Your task to perform on an android device: Open eBay Image 0: 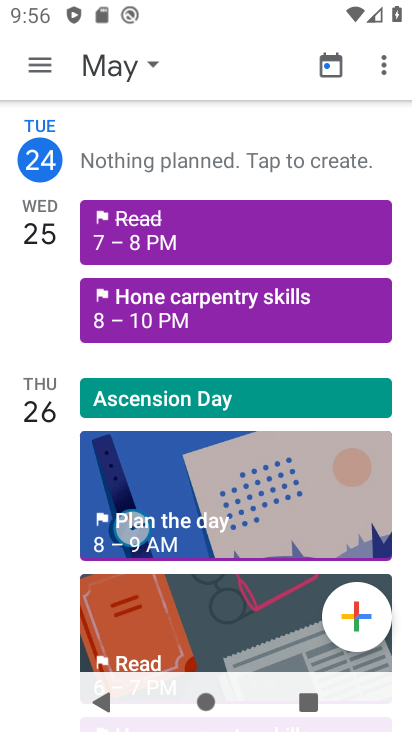
Step 0: press home button
Your task to perform on an android device: Open eBay Image 1: 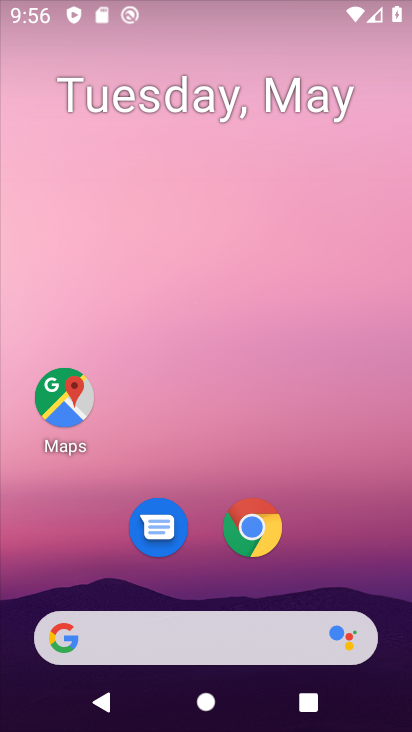
Step 1: drag from (213, 545) to (218, 67)
Your task to perform on an android device: Open eBay Image 2: 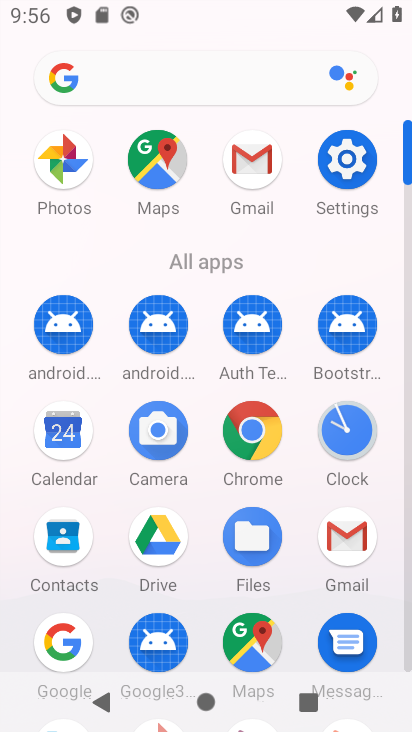
Step 2: click (57, 638)
Your task to perform on an android device: Open eBay Image 3: 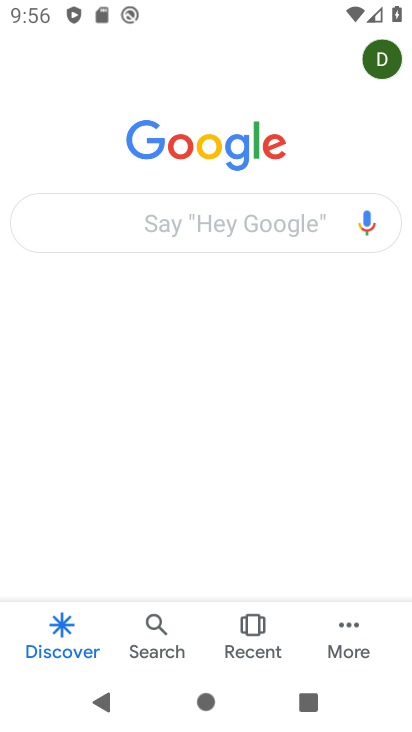
Step 3: click (157, 214)
Your task to perform on an android device: Open eBay Image 4: 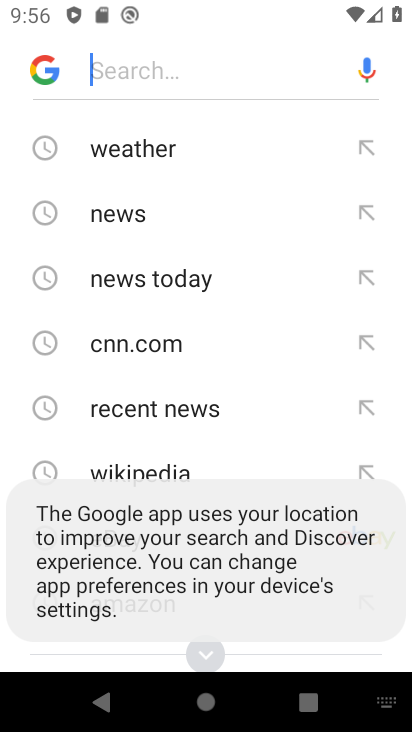
Step 4: drag from (187, 364) to (188, 55)
Your task to perform on an android device: Open eBay Image 5: 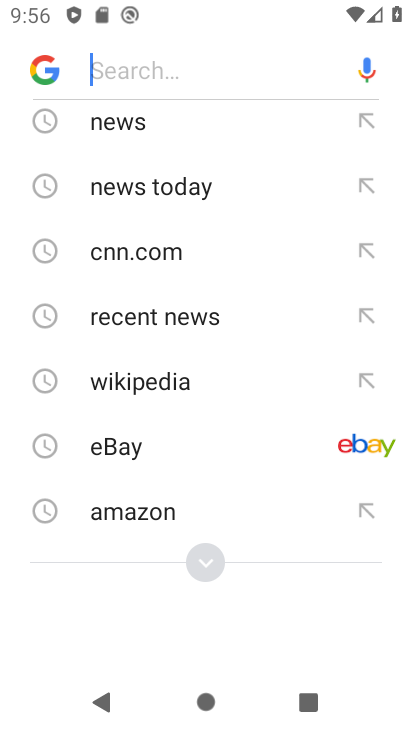
Step 5: click (124, 448)
Your task to perform on an android device: Open eBay Image 6: 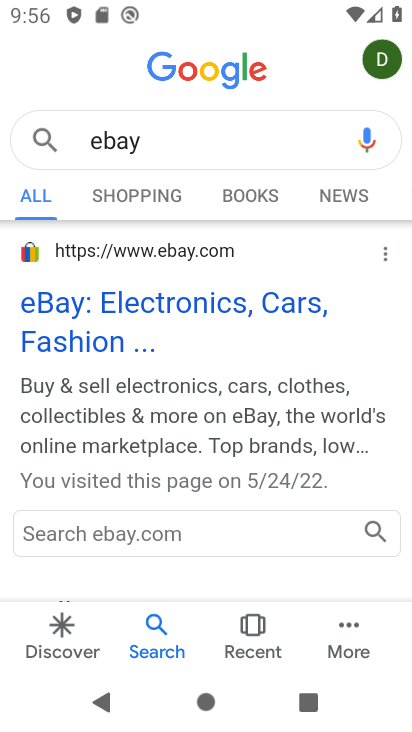
Step 6: task complete